Your task to perform on an android device: Search for vegetarian restaurants on Maps Image 0: 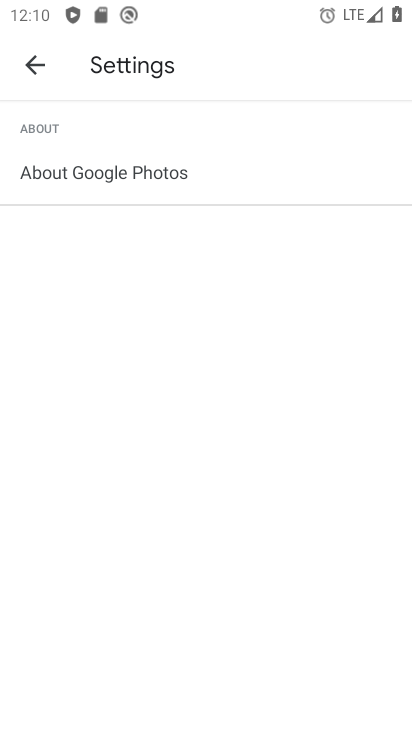
Step 0: press home button
Your task to perform on an android device: Search for vegetarian restaurants on Maps Image 1: 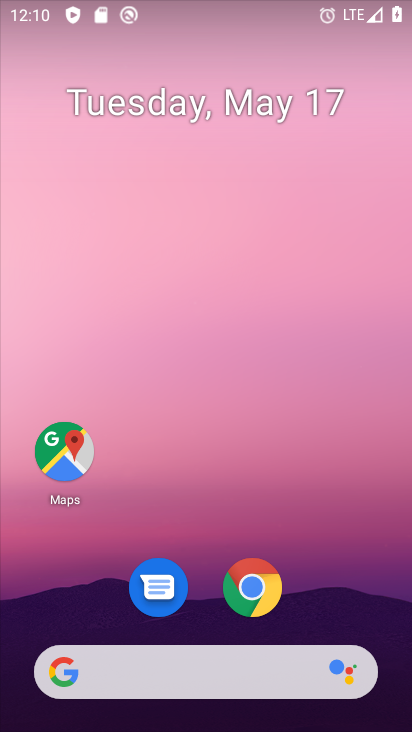
Step 1: drag from (396, 620) to (255, 36)
Your task to perform on an android device: Search for vegetarian restaurants on Maps Image 2: 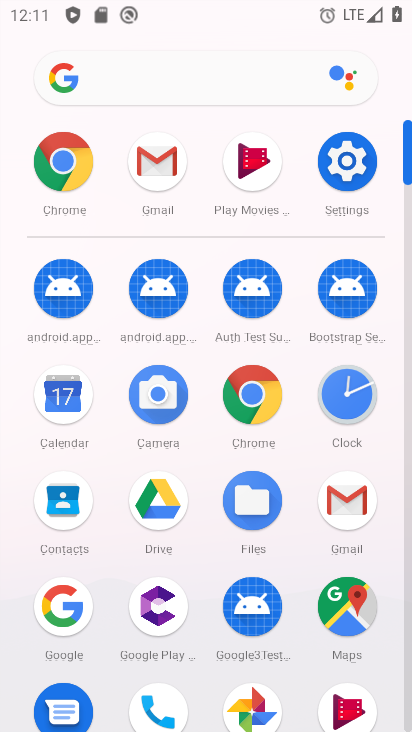
Step 2: click (360, 600)
Your task to perform on an android device: Search for vegetarian restaurants on Maps Image 3: 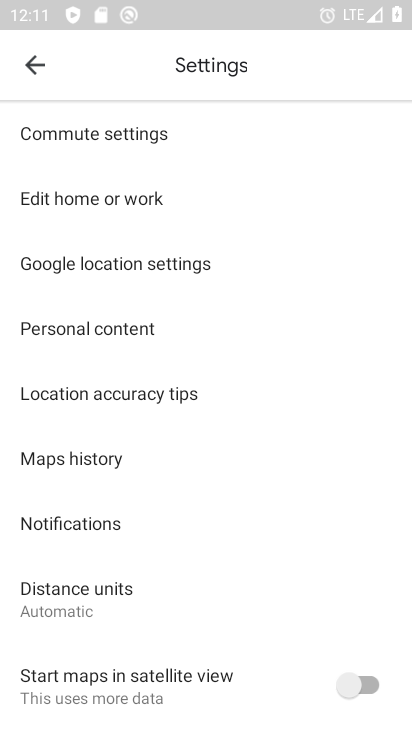
Step 3: press back button
Your task to perform on an android device: Search for vegetarian restaurants on Maps Image 4: 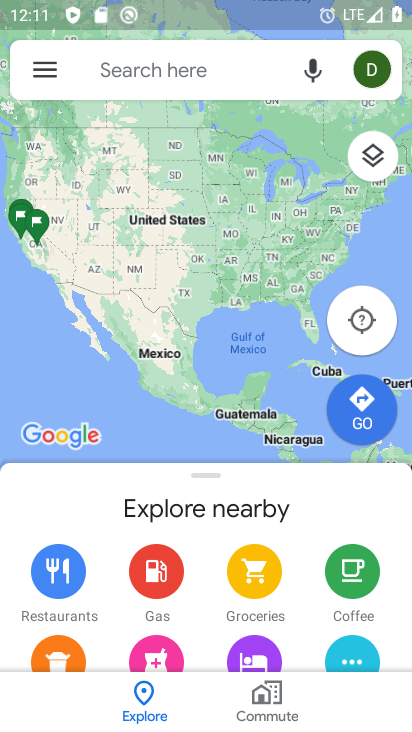
Step 4: click (105, 59)
Your task to perform on an android device: Search for vegetarian restaurants on Maps Image 5: 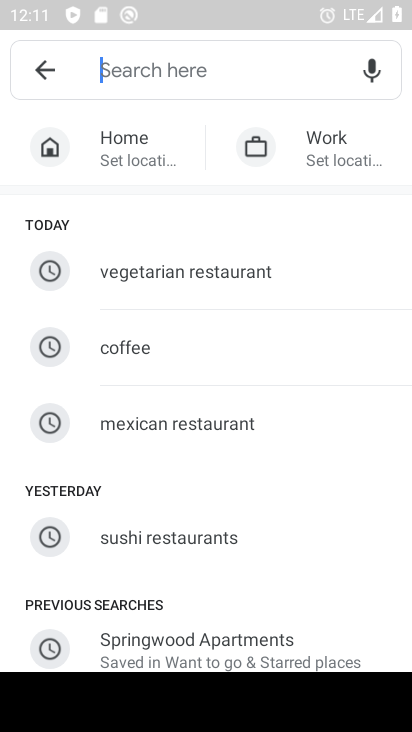
Step 5: click (195, 278)
Your task to perform on an android device: Search for vegetarian restaurants on Maps Image 6: 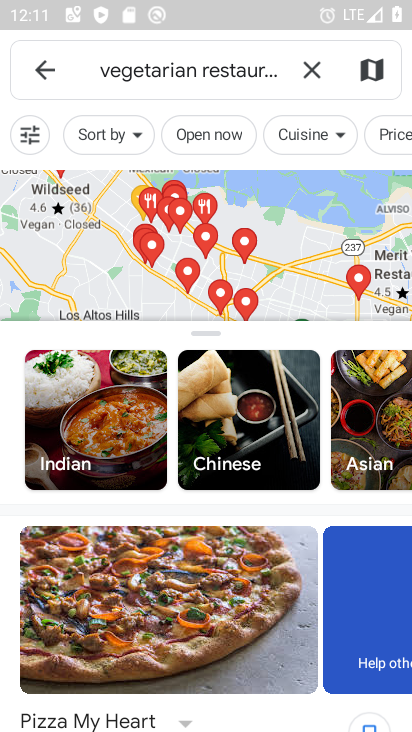
Step 6: task complete